Your task to perform on an android device: Check the news Image 0: 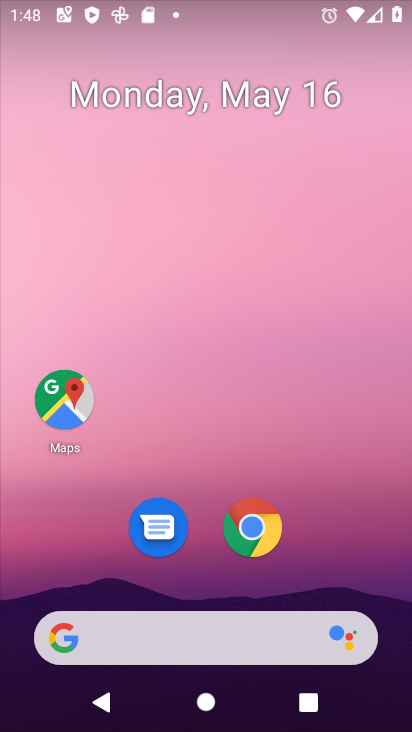
Step 0: click (253, 639)
Your task to perform on an android device: Check the news Image 1: 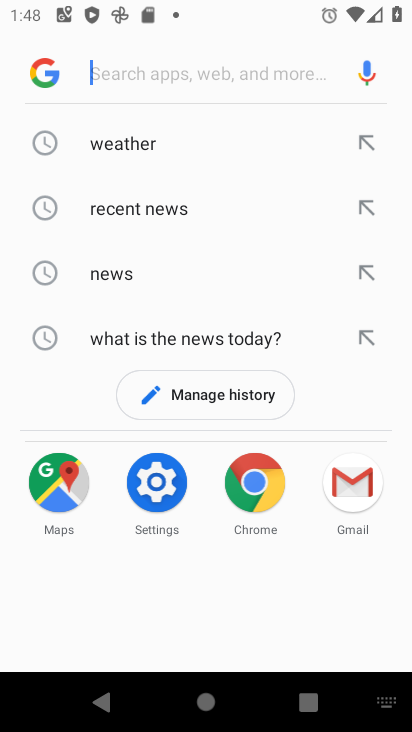
Step 1: click (160, 227)
Your task to perform on an android device: Check the news Image 2: 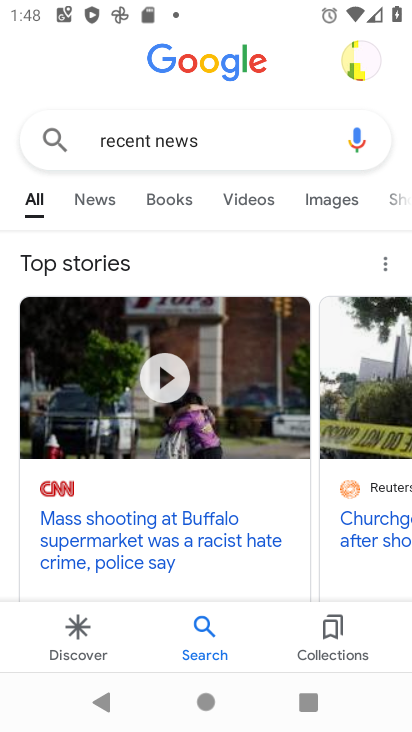
Step 2: task complete